Your task to perform on an android device: turn smart compose on in the gmail app Image 0: 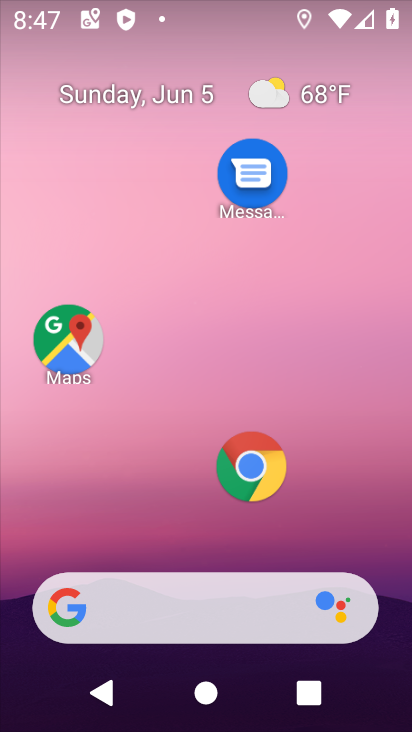
Step 0: drag from (192, 489) to (243, 105)
Your task to perform on an android device: turn smart compose on in the gmail app Image 1: 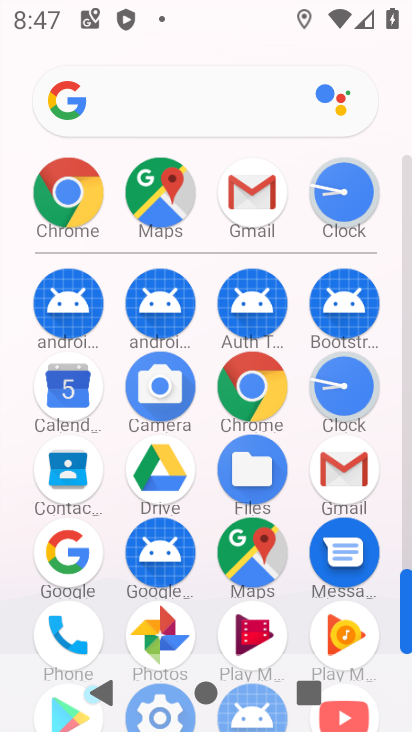
Step 1: click (335, 462)
Your task to perform on an android device: turn smart compose on in the gmail app Image 2: 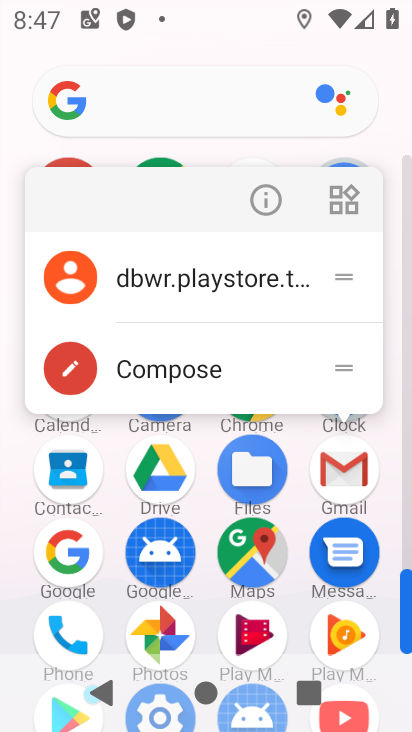
Step 2: click (256, 199)
Your task to perform on an android device: turn smart compose on in the gmail app Image 3: 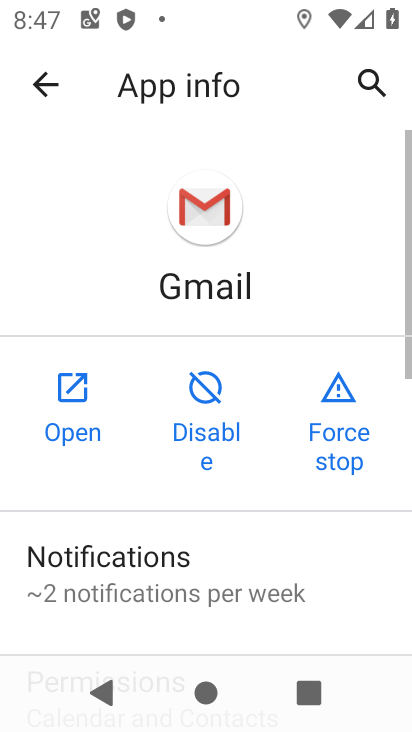
Step 3: click (72, 387)
Your task to perform on an android device: turn smart compose on in the gmail app Image 4: 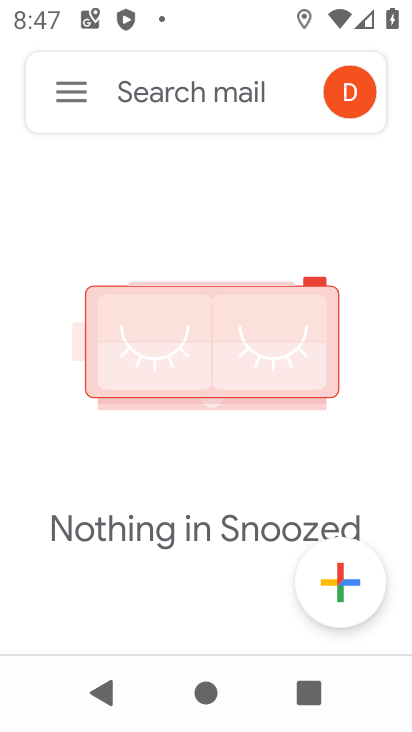
Step 4: click (68, 96)
Your task to perform on an android device: turn smart compose on in the gmail app Image 5: 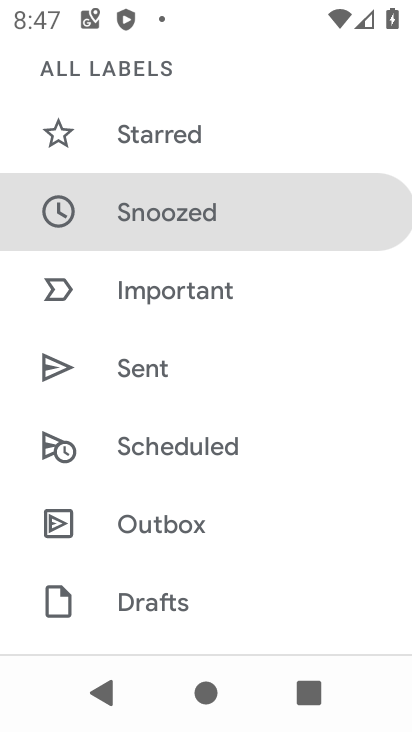
Step 5: drag from (202, 527) to (321, 9)
Your task to perform on an android device: turn smart compose on in the gmail app Image 6: 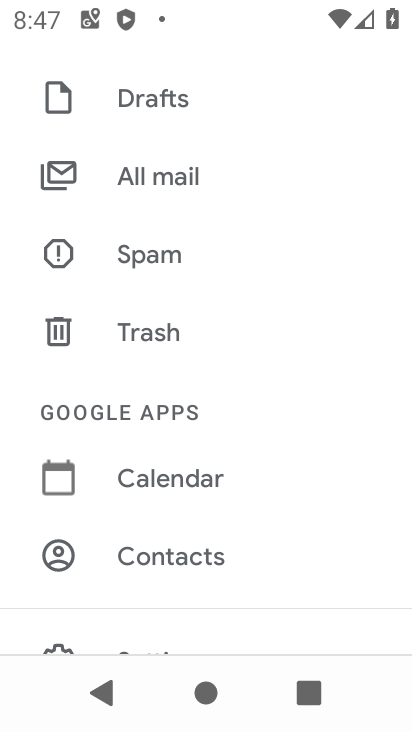
Step 6: drag from (224, 614) to (265, 10)
Your task to perform on an android device: turn smart compose on in the gmail app Image 7: 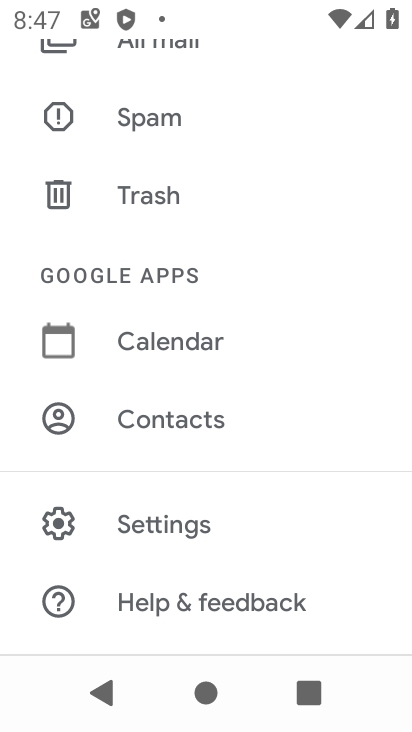
Step 7: click (197, 511)
Your task to perform on an android device: turn smart compose on in the gmail app Image 8: 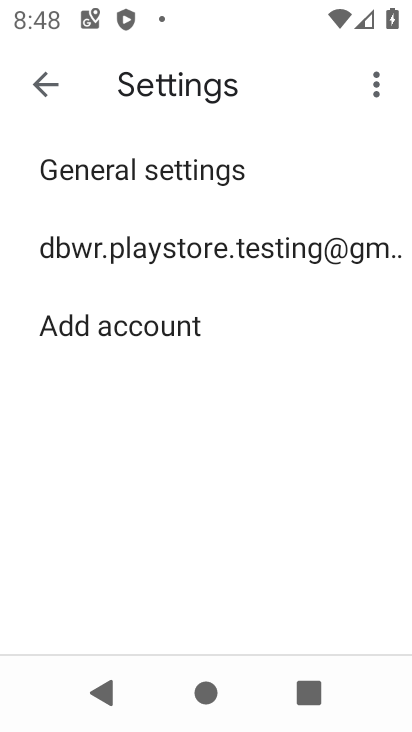
Step 8: drag from (292, 550) to (404, 32)
Your task to perform on an android device: turn smart compose on in the gmail app Image 9: 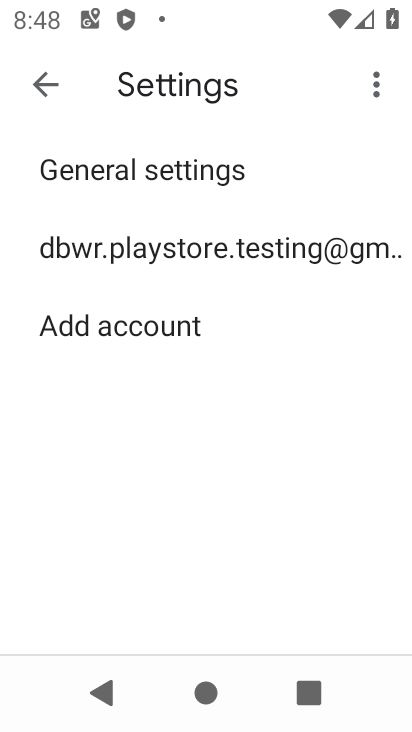
Step 9: click (196, 266)
Your task to perform on an android device: turn smart compose on in the gmail app Image 10: 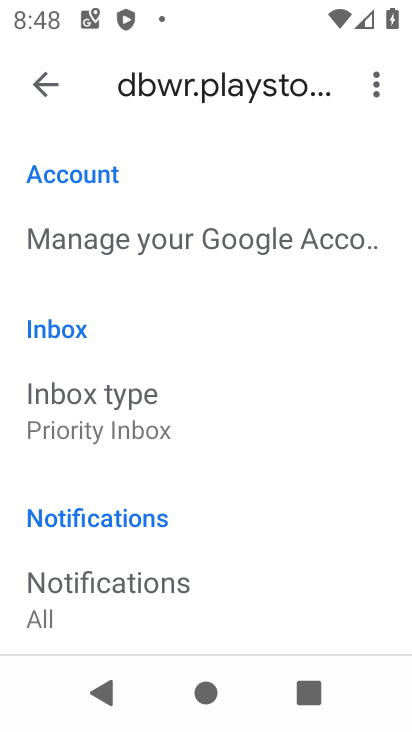
Step 10: task complete